Your task to perform on an android device: Go to wifi settings Image 0: 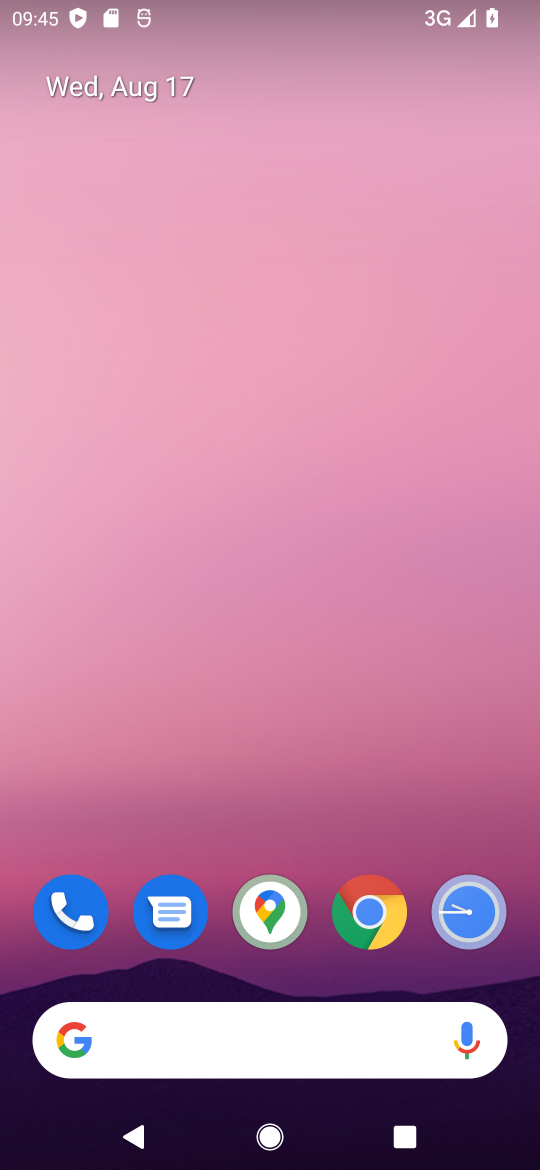
Step 0: drag from (283, 587) to (296, 203)
Your task to perform on an android device: Go to wifi settings Image 1: 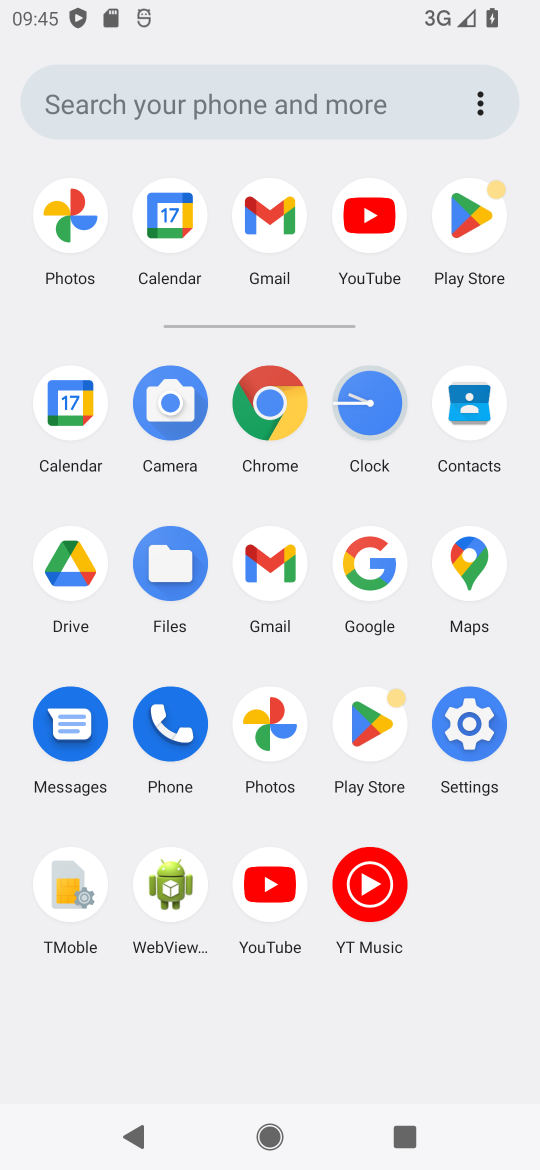
Step 1: click (464, 709)
Your task to perform on an android device: Go to wifi settings Image 2: 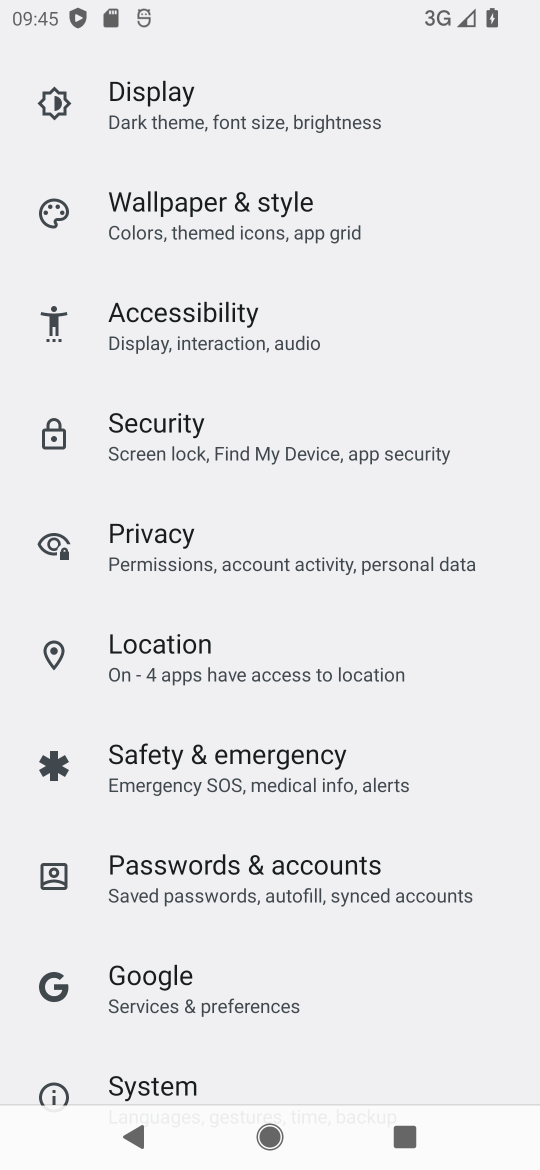
Step 2: drag from (235, 106) to (263, 828)
Your task to perform on an android device: Go to wifi settings Image 3: 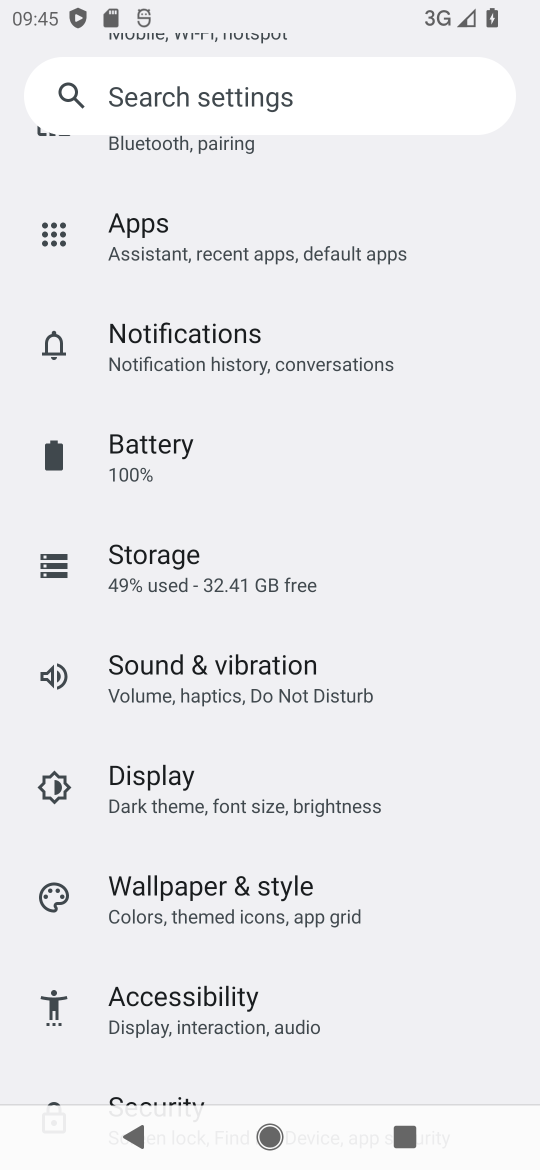
Step 3: drag from (249, 195) to (310, 779)
Your task to perform on an android device: Go to wifi settings Image 4: 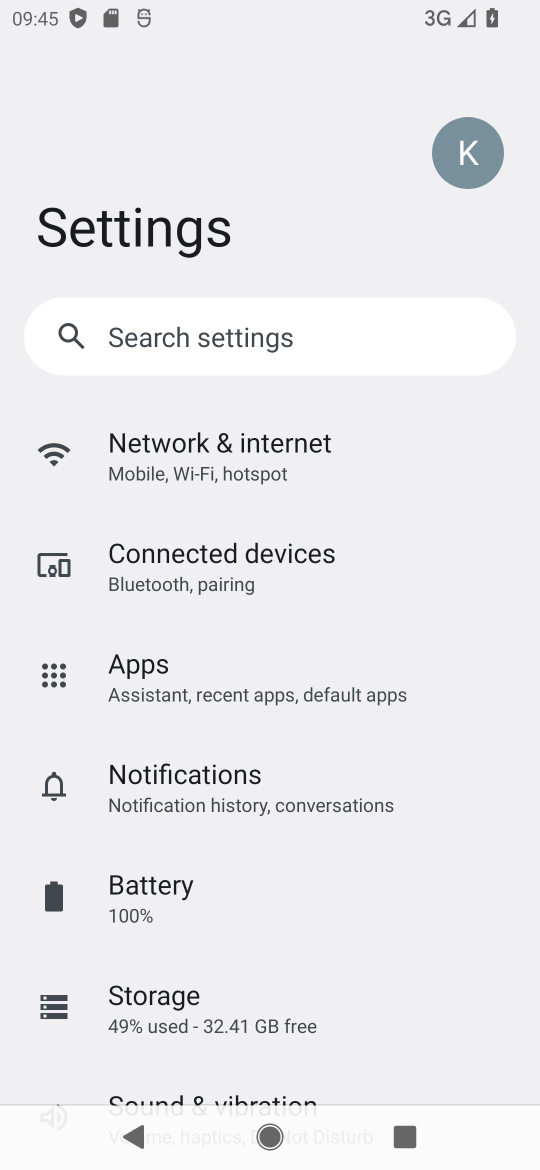
Step 4: click (184, 453)
Your task to perform on an android device: Go to wifi settings Image 5: 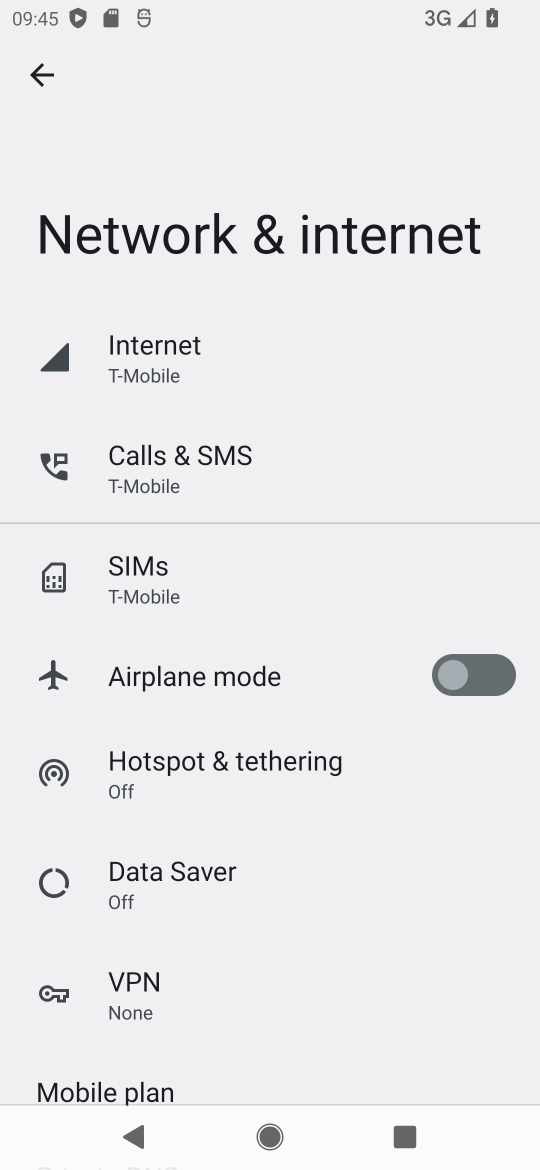
Step 5: click (183, 369)
Your task to perform on an android device: Go to wifi settings Image 6: 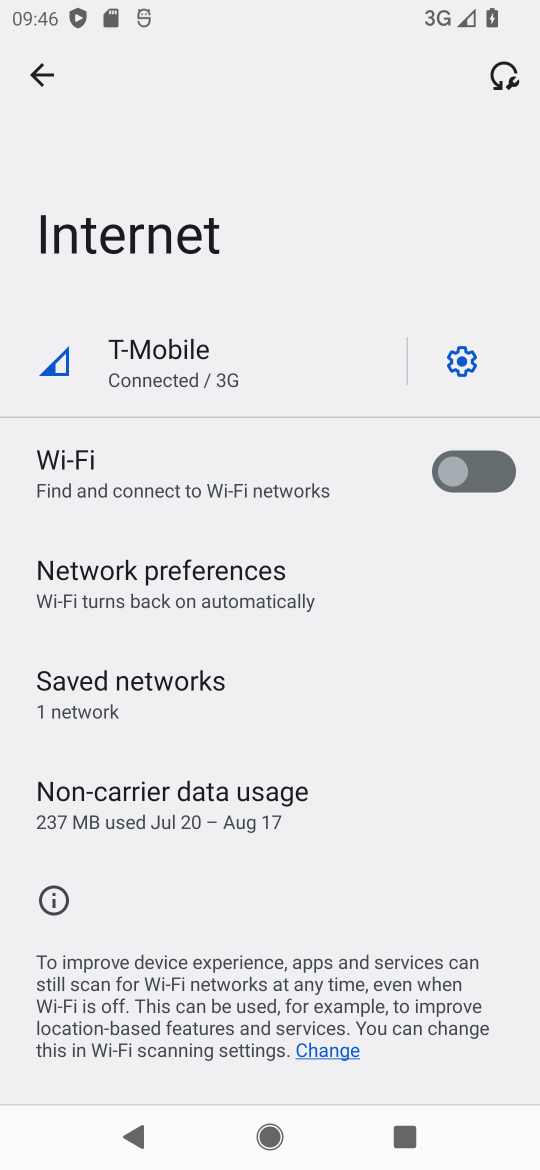
Step 6: click (482, 462)
Your task to perform on an android device: Go to wifi settings Image 7: 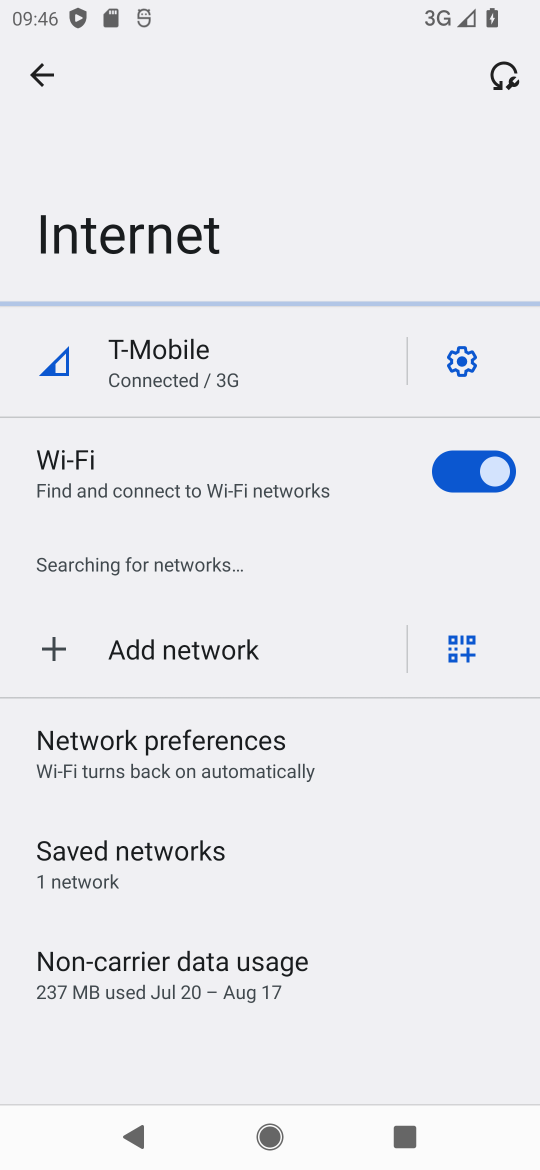
Step 7: click (180, 666)
Your task to perform on an android device: Go to wifi settings Image 8: 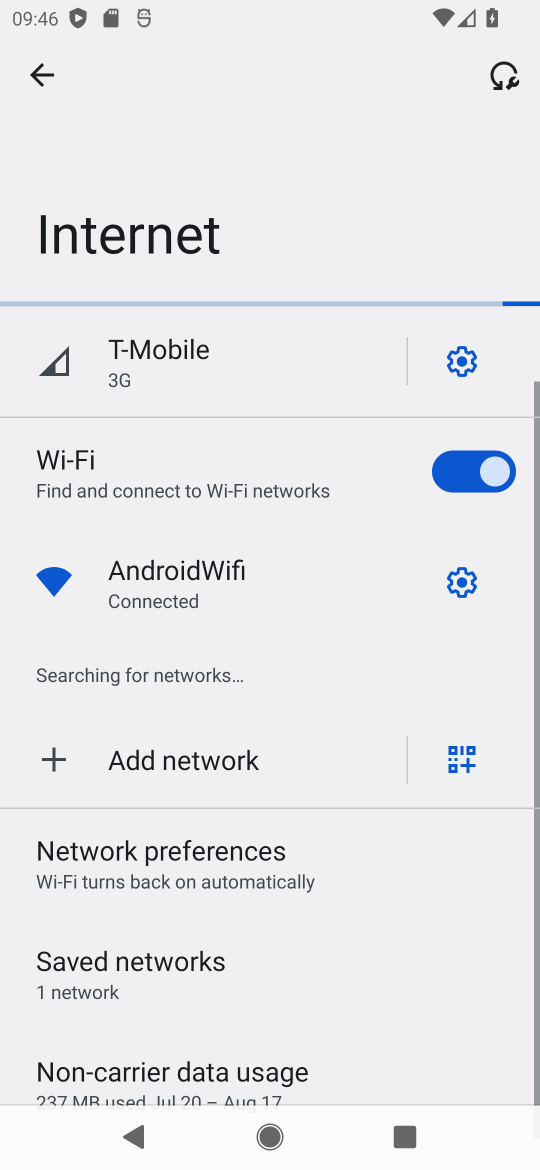
Step 8: click (460, 586)
Your task to perform on an android device: Go to wifi settings Image 9: 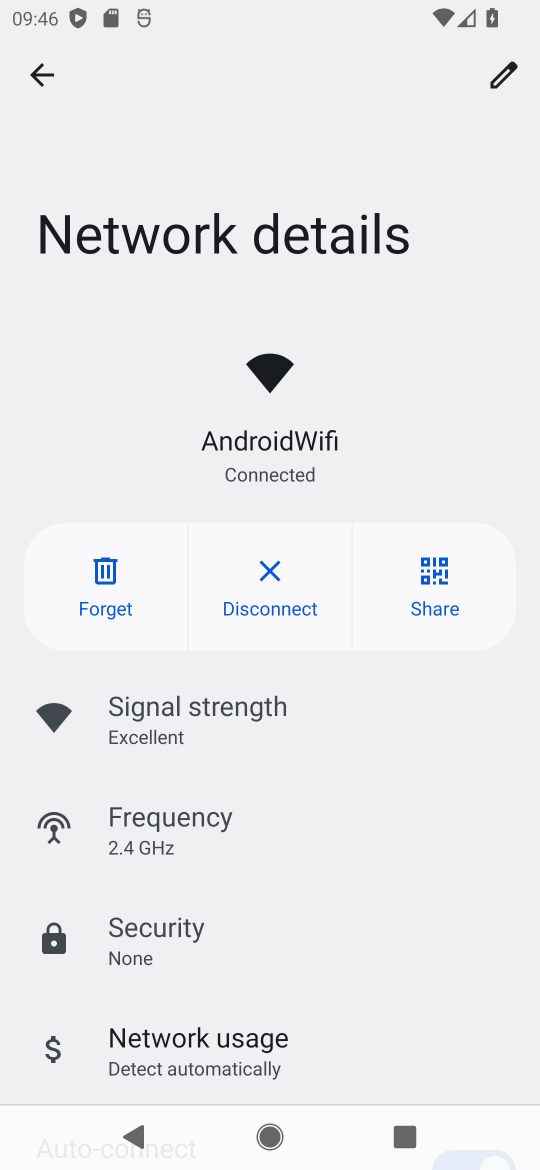
Step 9: task complete